Your task to perform on an android device: Open Youtube and go to "Your channel" Image 0: 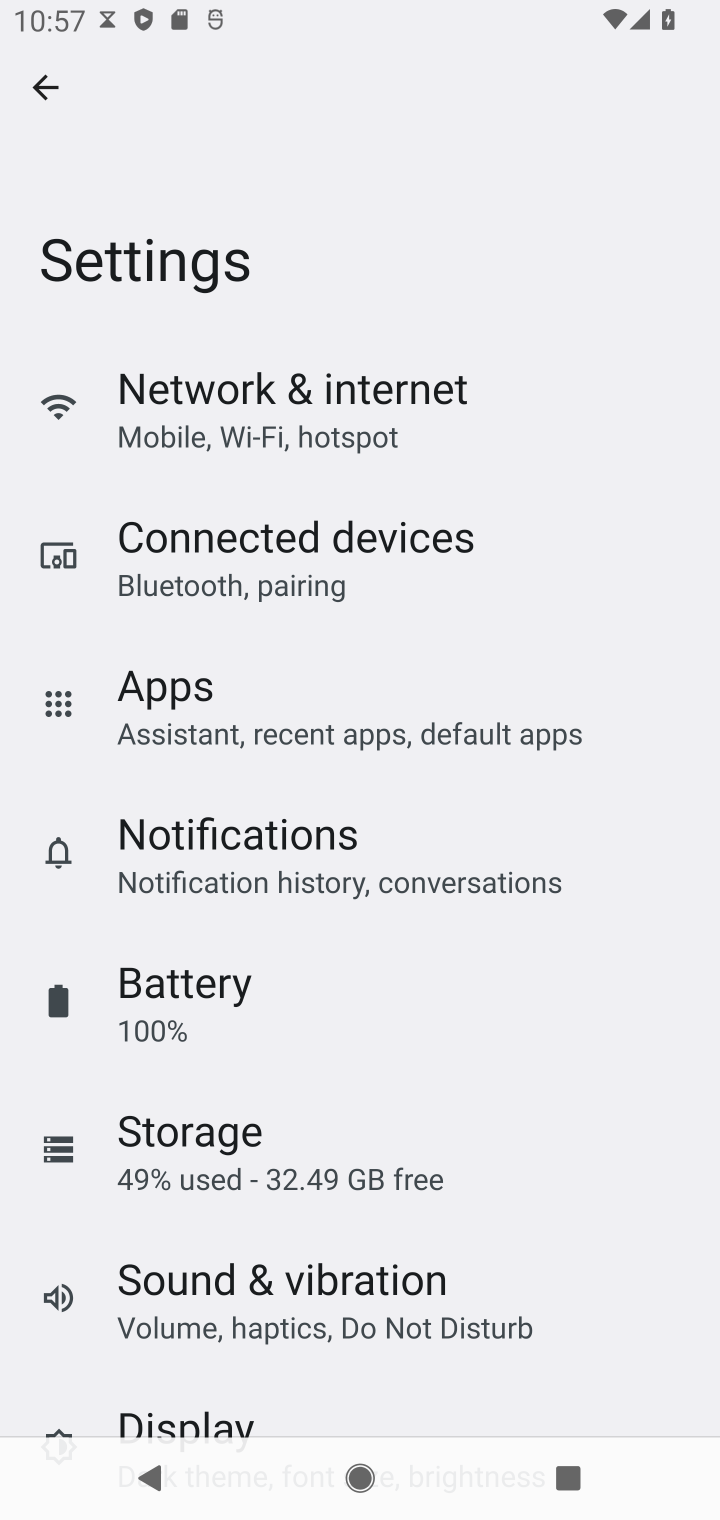
Step 0: press back button
Your task to perform on an android device: Open Youtube and go to "Your channel" Image 1: 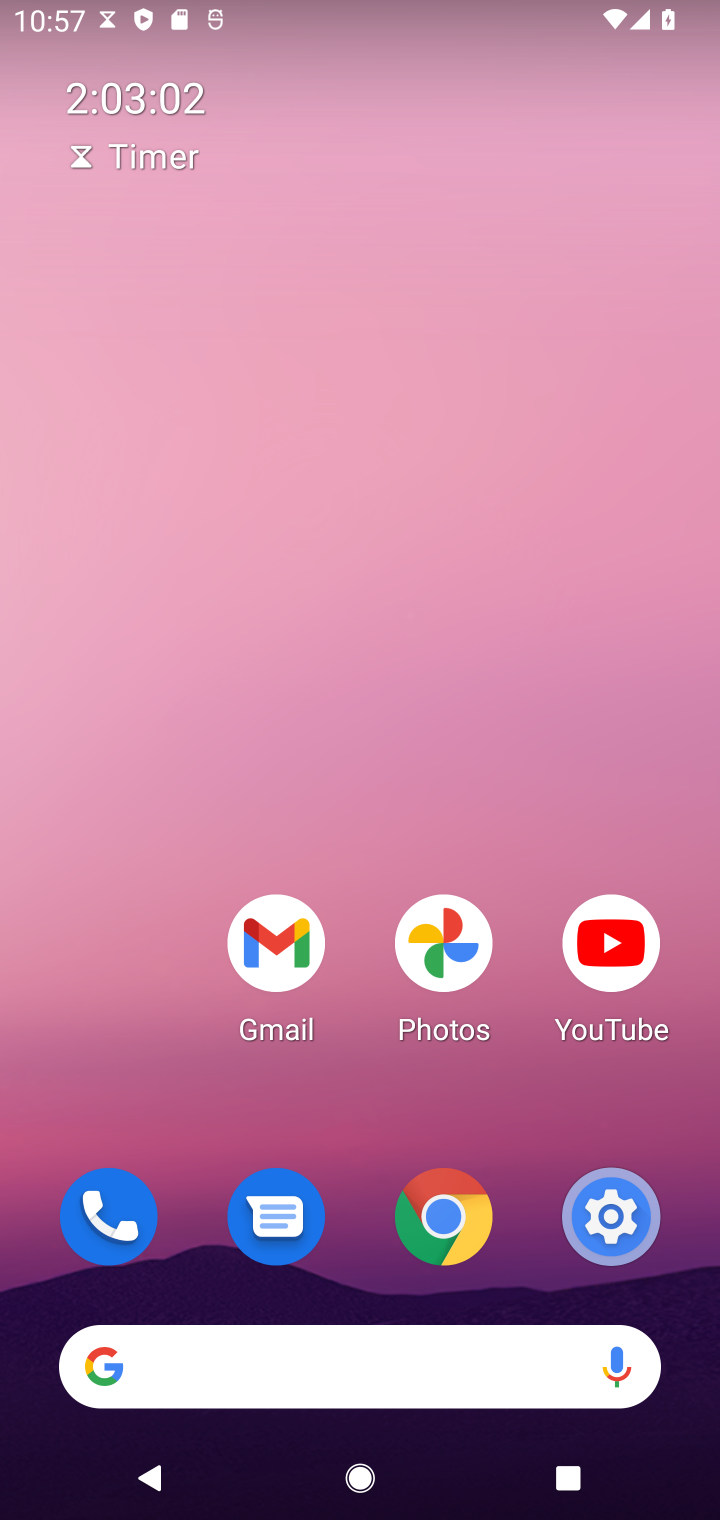
Step 1: click (620, 940)
Your task to perform on an android device: Open Youtube and go to "Your channel" Image 2: 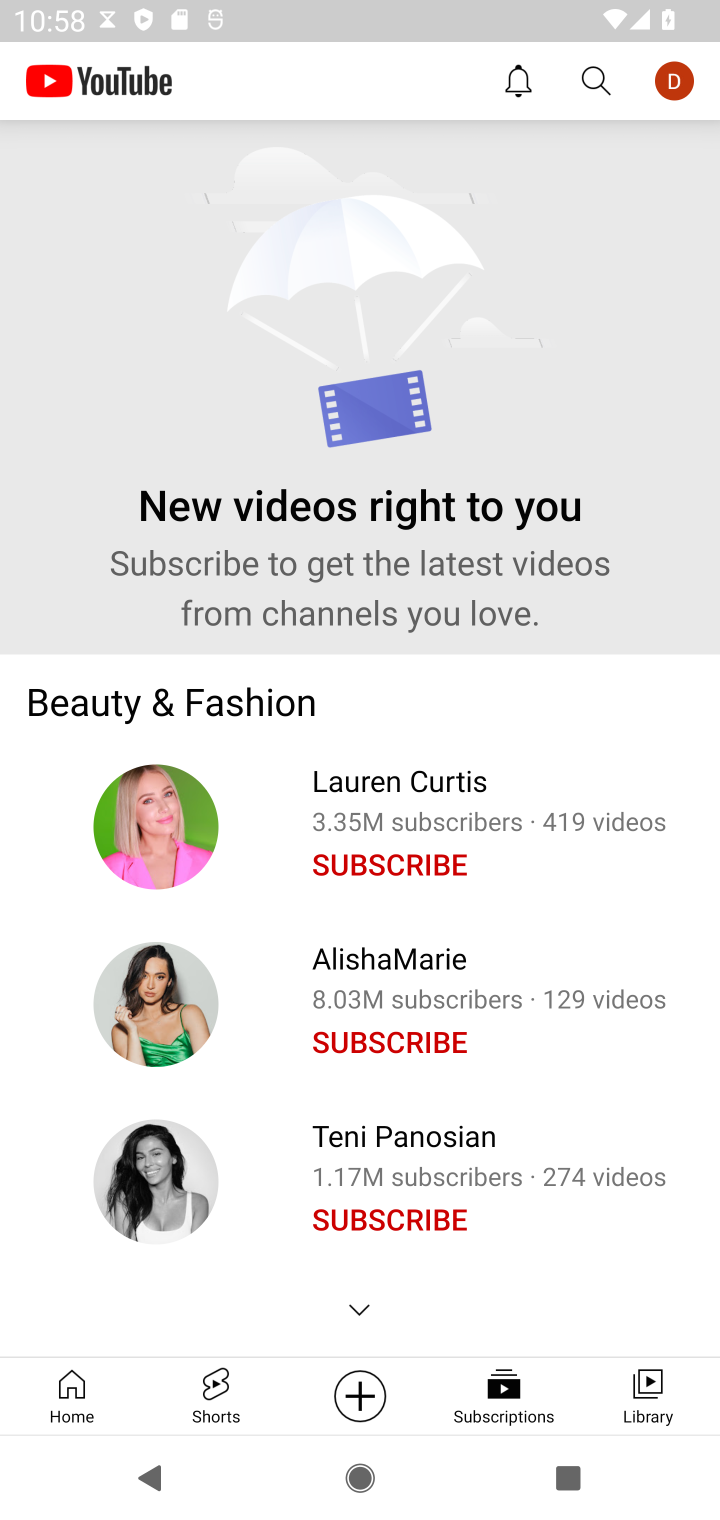
Step 2: click (672, 86)
Your task to perform on an android device: Open Youtube and go to "Your channel" Image 3: 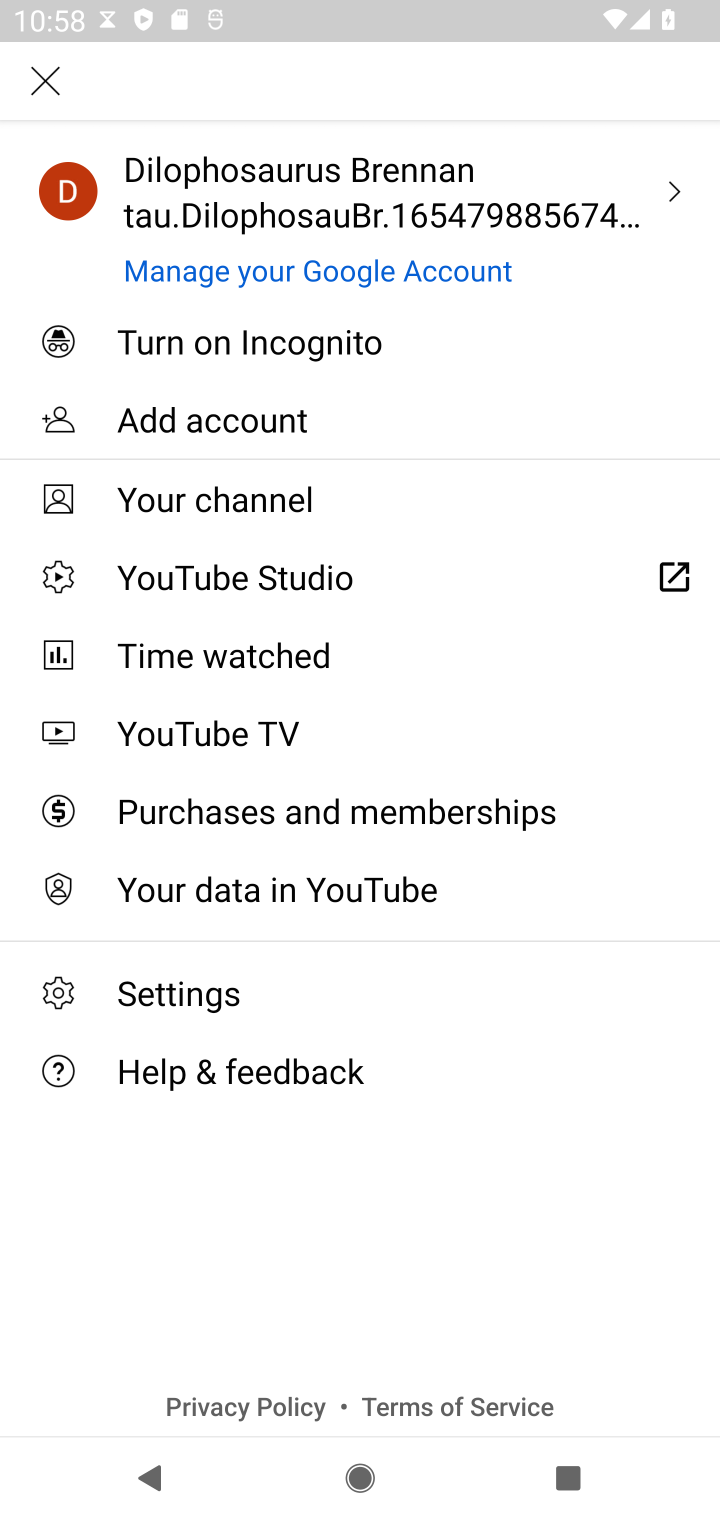
Step 3: click (208, 505)
Your task to perform on an android device: Open Youtube and go to "Your channel" Image 4: 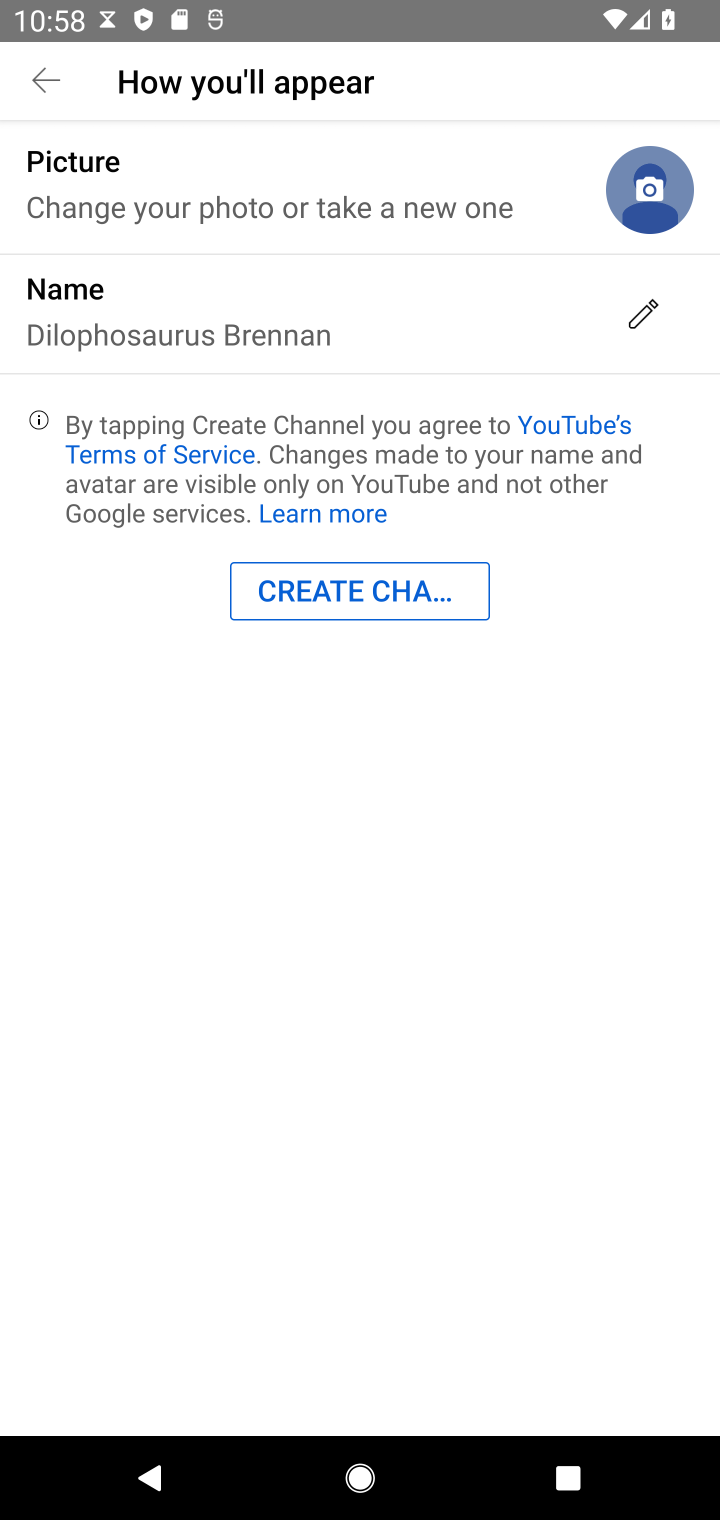
Step 4: task complete